Your task to perform on an android device: install app "Move to iOS" Image 0: 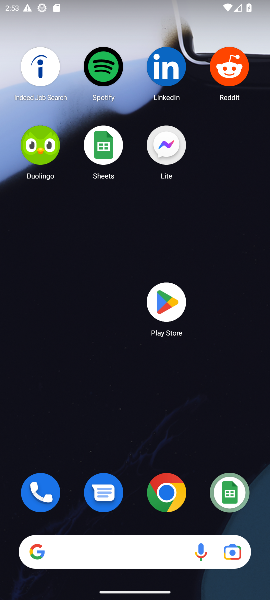
Step 0: click (177, 301)
Your task to perform on an android device: install app "Move to iOS" Image 1: 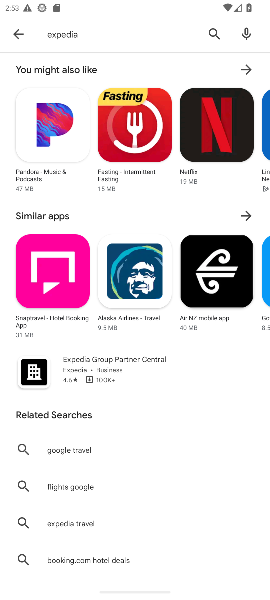
Step 1: click (129, 346)
Your task to perform on an android device: install app "Move to iOS" Image 2: 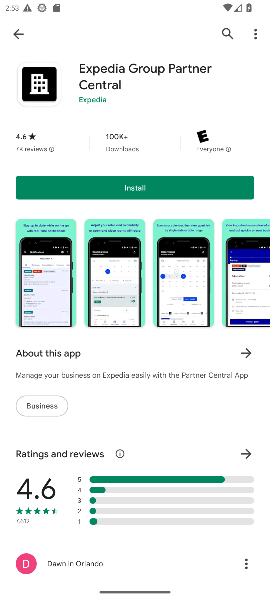
Step 2: click (226, 33)
Your task to perform on an android device: install app "Move to iOS" Image 3: 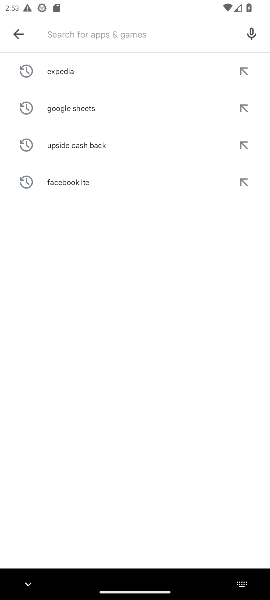
Step 3: type "move so"
Your task to perform on an android device: install app "Move to iOS" Image 4: 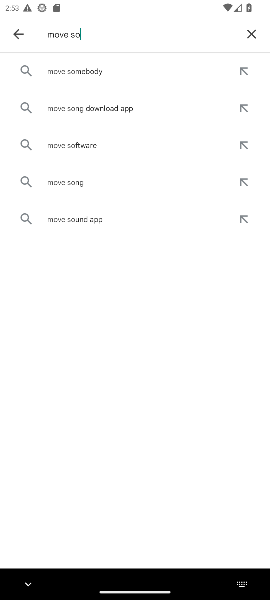
Step 4: click (104, 84)
Your task to perform on an android device: install app "Move to iOS" Image 5: 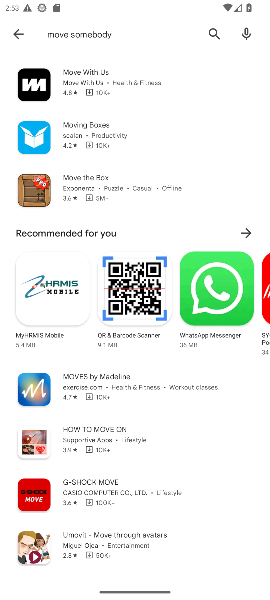
Step 5: click (214, 40)
Your task to perform on an android device: install app "Move to iOS" Image 6: 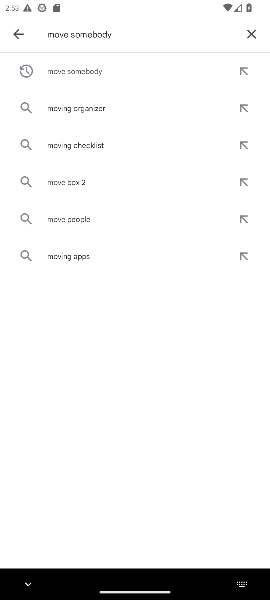
Step 6: click (251, 42)
Your task to perform on an android device: install app "Move to iOS" Image 7: 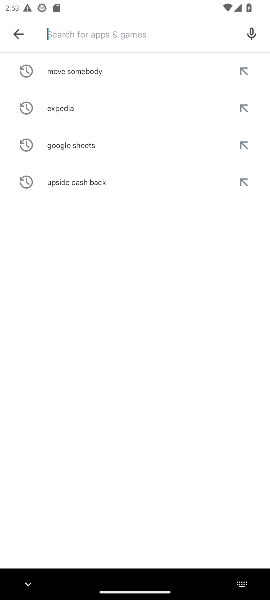
Step 7: type "move so"
Your task to perform on an android device: install app "Move to iOS" Image 8: 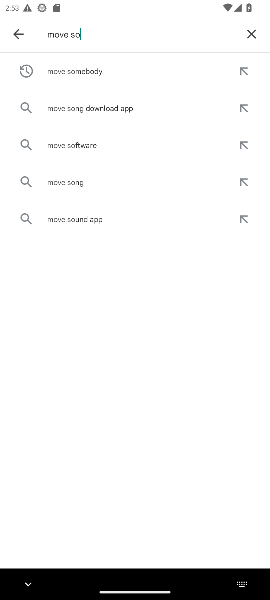
Step 8: task complete